Your task to perform on an android device: Go to privacy settings Image 0: 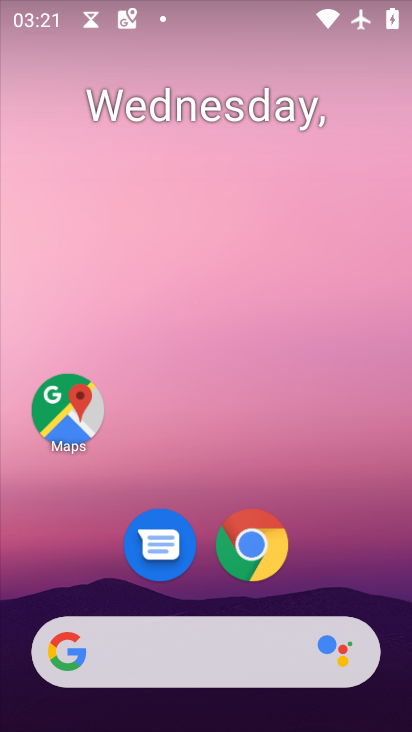
Step 0: press home button
Your task to perform on an android device: Go to privacy settings Image 1: 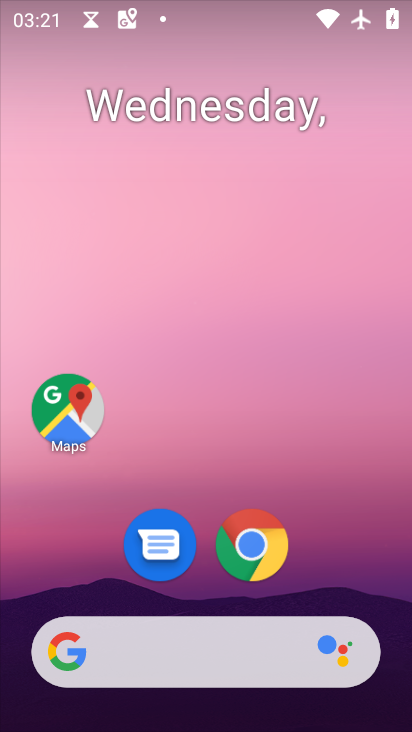
Step 1: drag from (148, 669) to (309, 179)
Your task to perform on an android device: Go to privacy settings Image 2: 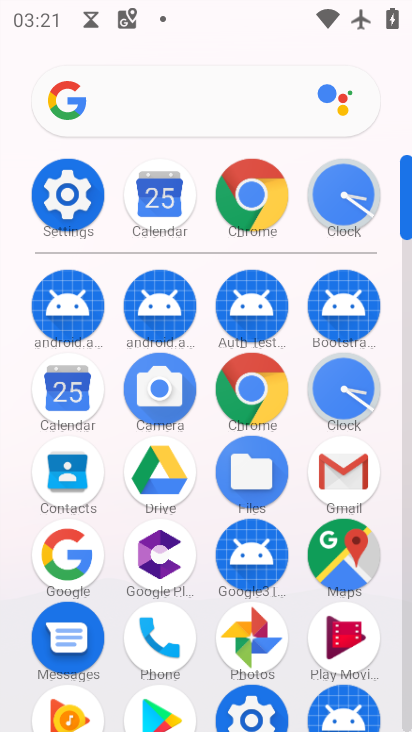
Step 2: click (68, 209)
Your task to perform on an android device: Go to privacy settings Image 3: 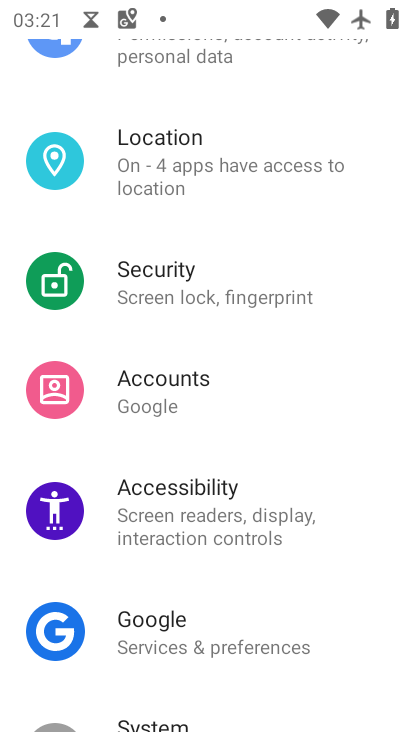
Step 3: drag from (343, 119) to (250, 670)
Your task to perform on an android device: Go to privacy settings Image 4: 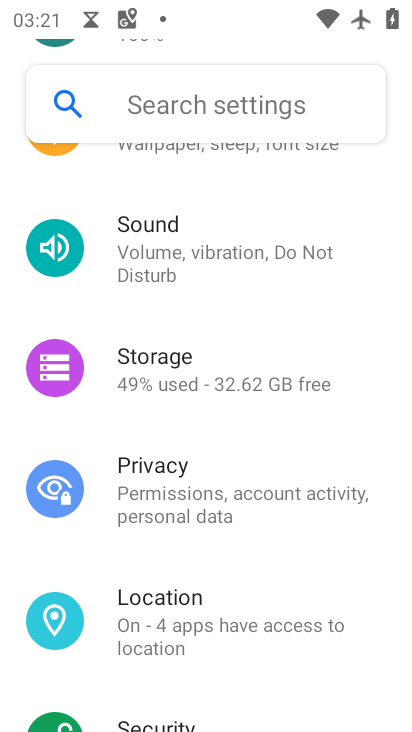
Step 4: click (200, 497)
Your task to perform on an android device: Go to privacy settings Image 5: 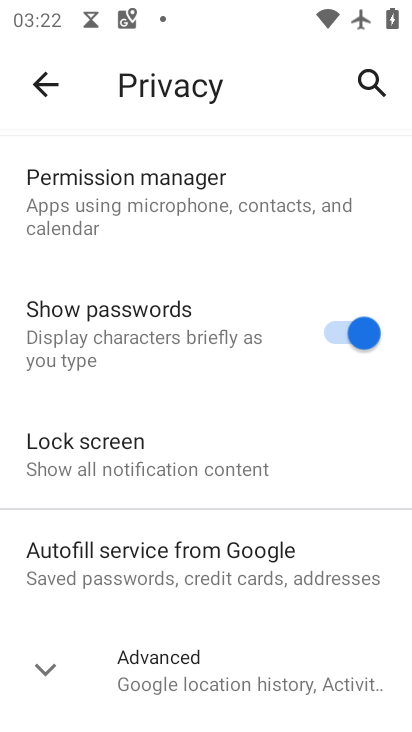
Step 5: task complete